Your task to perform on an android device: read, delete, or share a saved page in the chrome app Image 0: 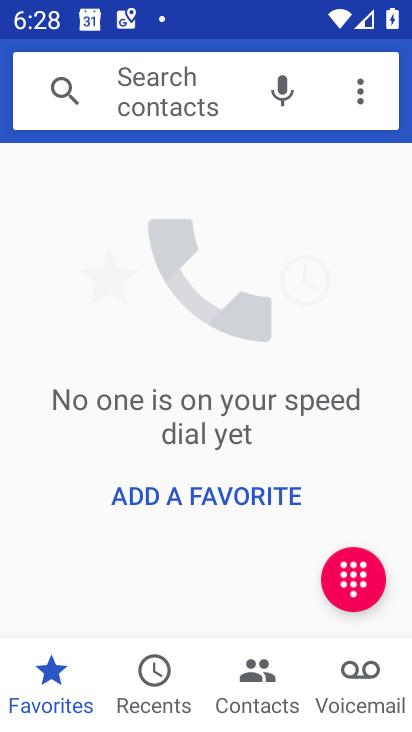
Step 0: press home button
Your task to perform on an android device: read, delete, or share a saved page in the chrome app Image 1: 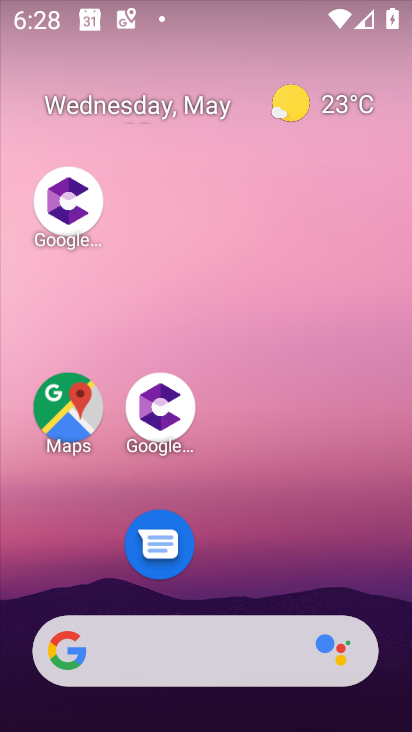
Step 1: drag from (300, 510) to (227, 19)
Your task to perform on an android device: read, delete, or share a saved page in the chrome app Image 2: 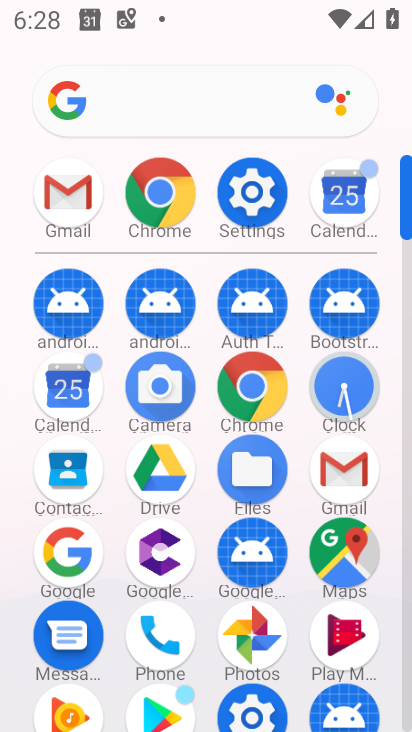
Step 2: click (154, 206)
Your task to perform on an android device: read, delete, or share a saved page in the chrome app Image 3: 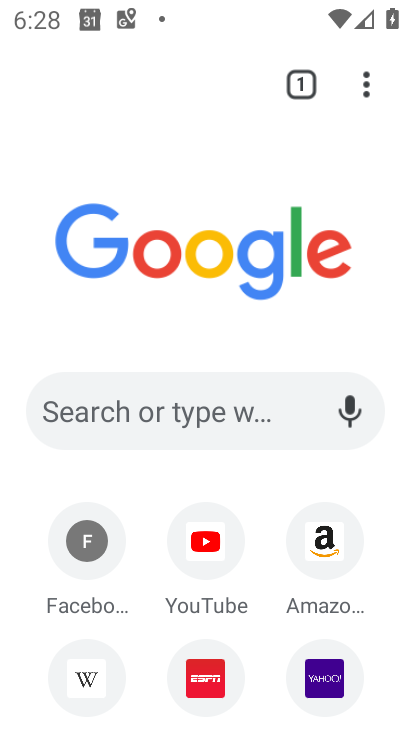
Step 3: click (369, 78)
Your task to perform on an android device: read, delete, or share a saved page in the chrome app Image 4: 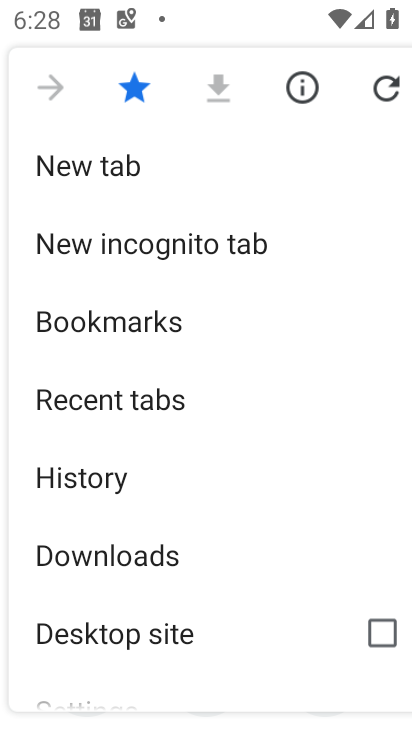
Step 4: click (92, 559)
Your task to perform on an android device: read, delete, or share a saved page in the chrome app Image 5: 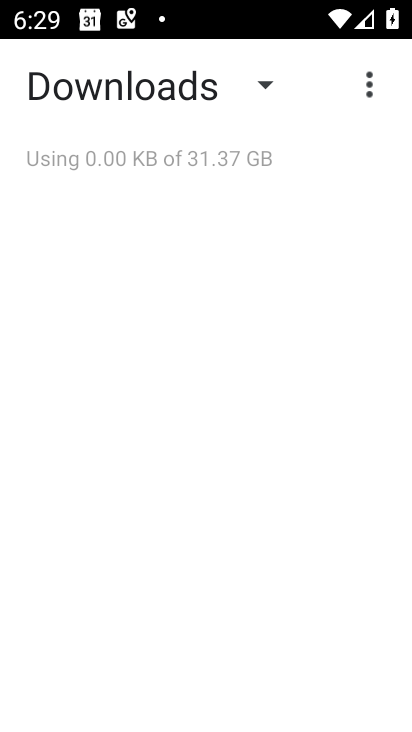
Step 5: task complete